Your task to perform on an android device: Is it going to rain today? Image 0: 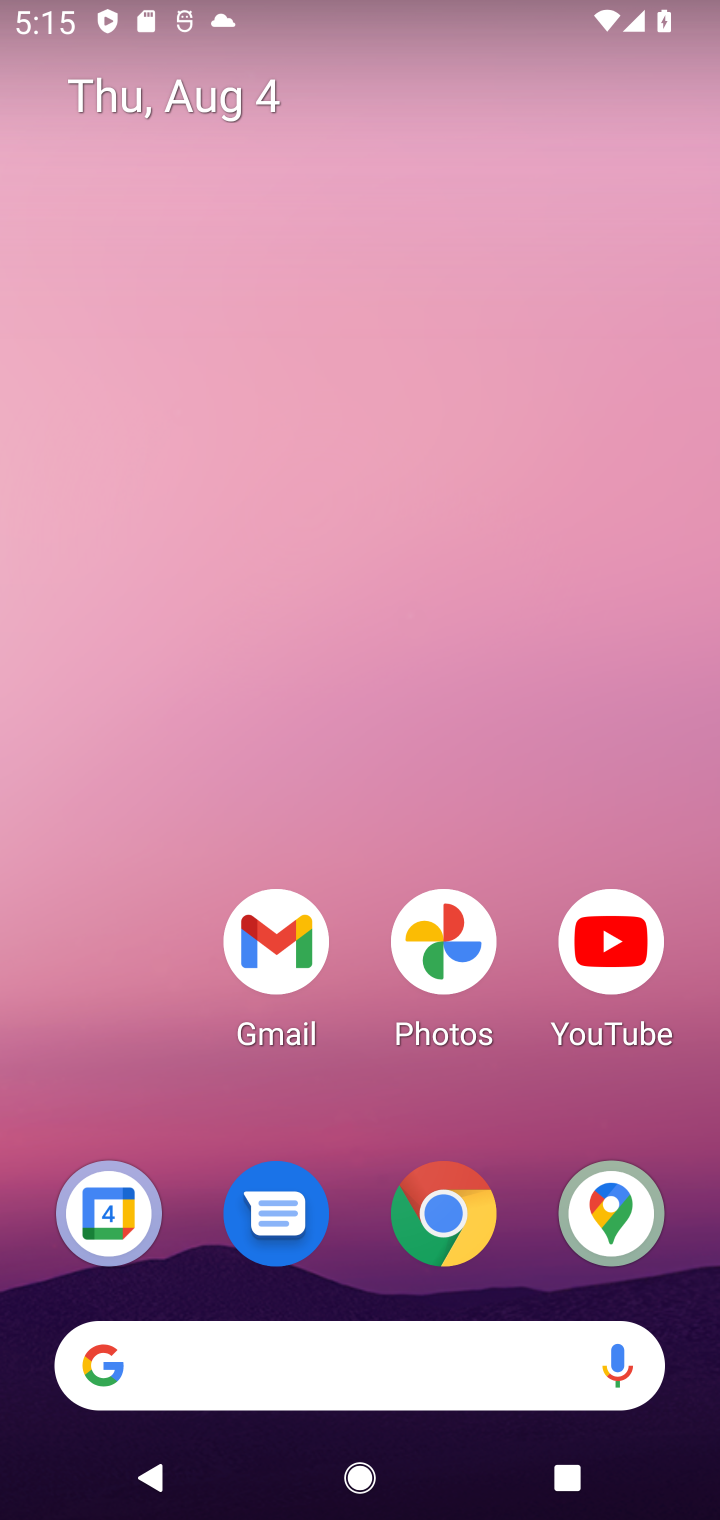
Step 0: press home button
Your task to perform on an android device: Is it going to rain today? Image 1: 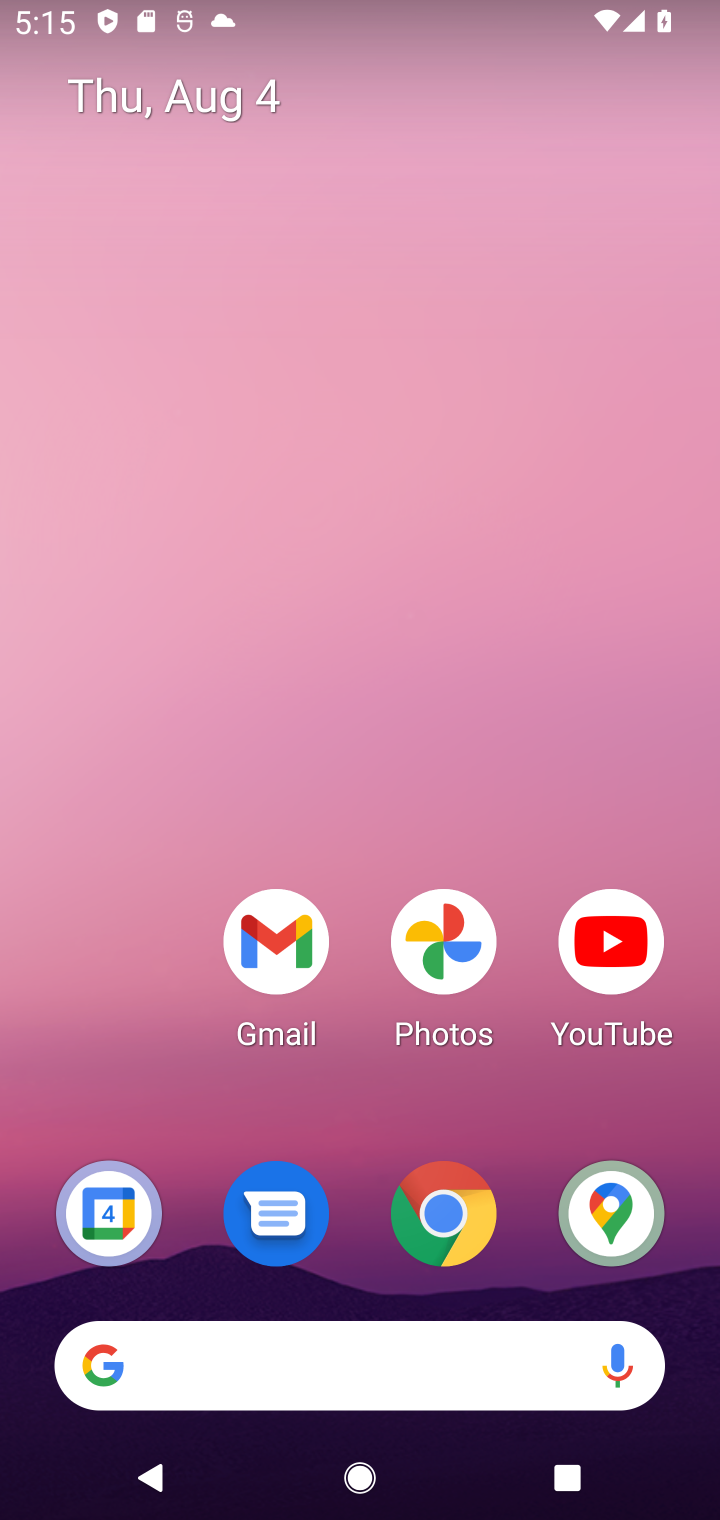
Step 1: click (368, 1356)
Your task to perform on an android device: Is it going to rain today? Image 2: 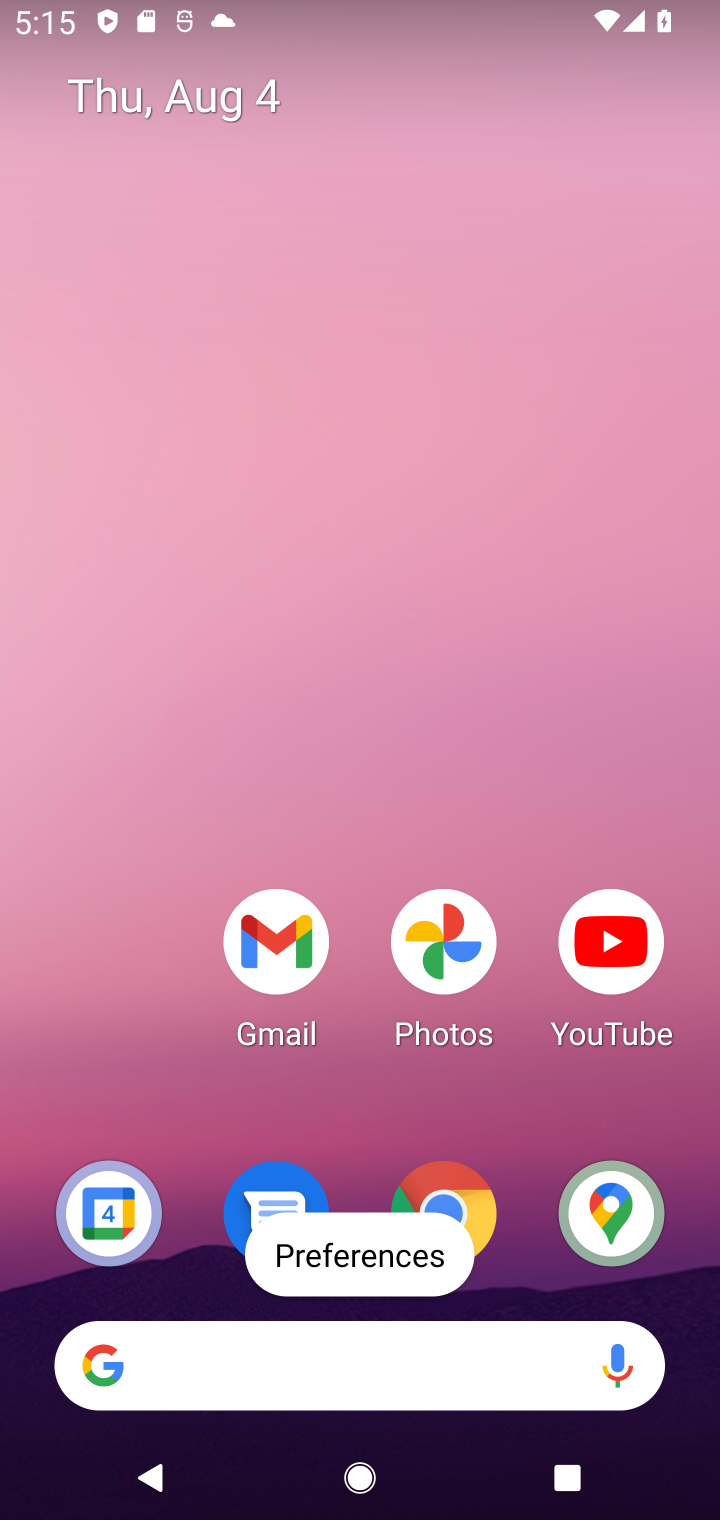
Step 2: click (503, 1362)
Your task to perform on an android device: Is it going to rain today? Image 3: 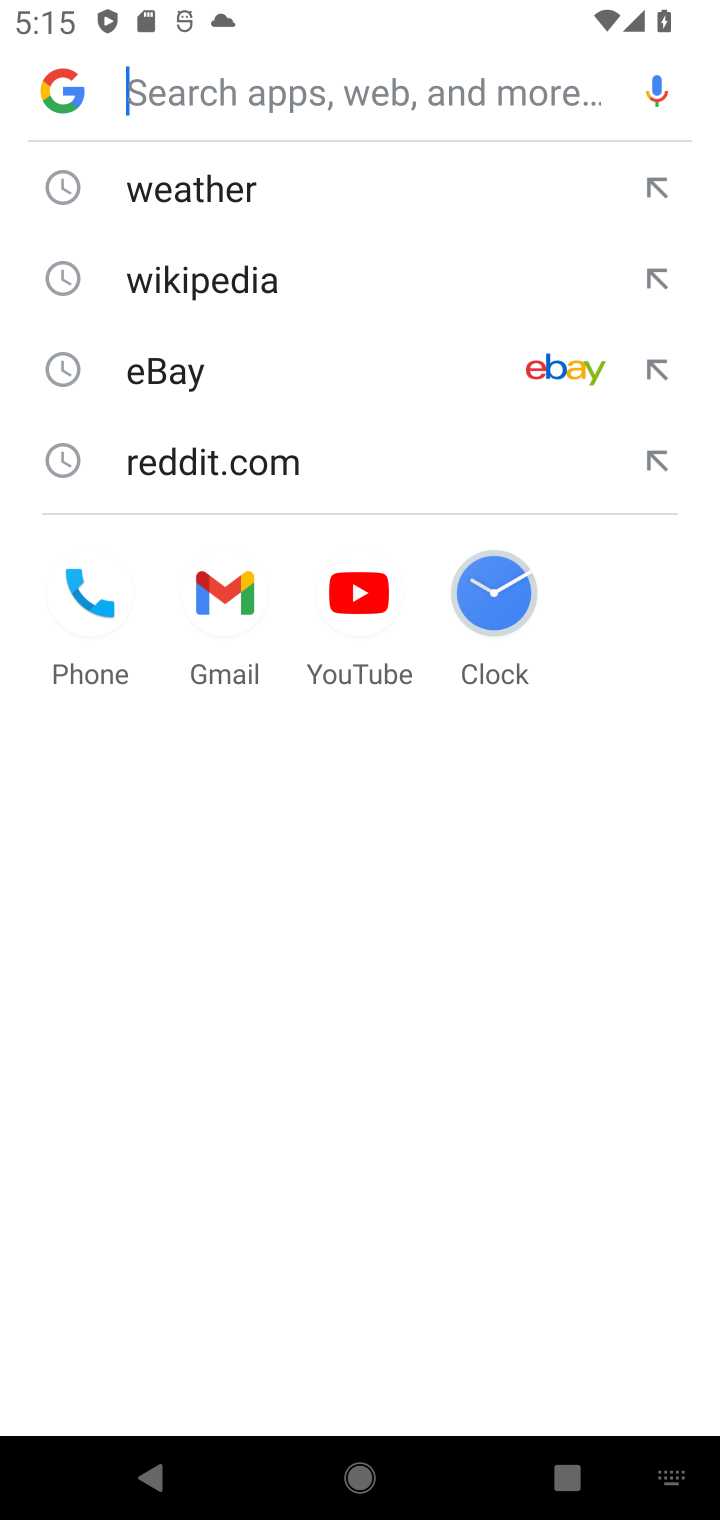
Step 3: click (216, 189)
Your task to perform on an android device: Is it going to rain today? Image 4: 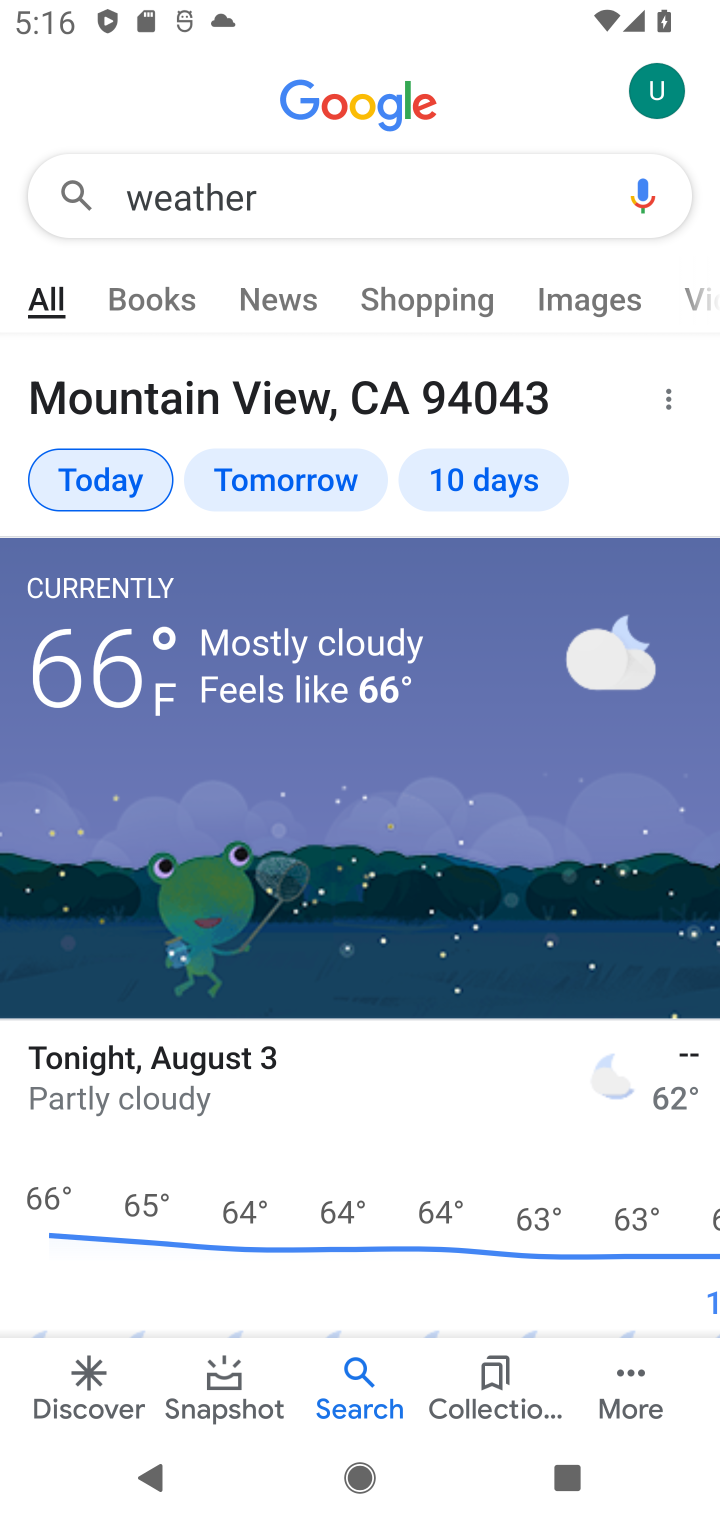
Step 4: task complete